Your task to perform on an android device: Go to Wikipedia Image 0: 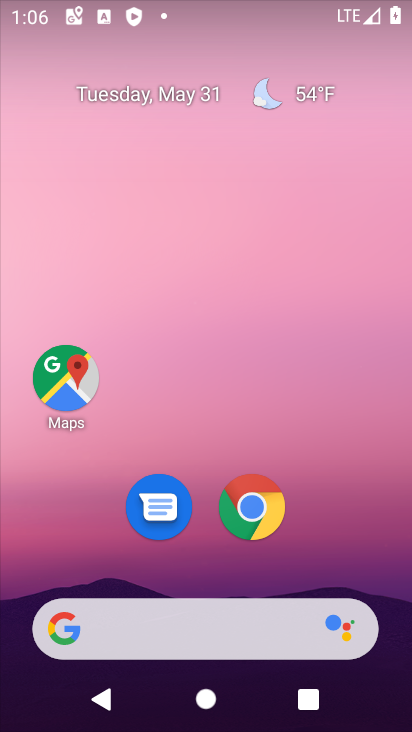
Step 0: drag from (399, 636) to (305, 42)
Your task to perform on an android device: Go to Wikipedia Image 1: 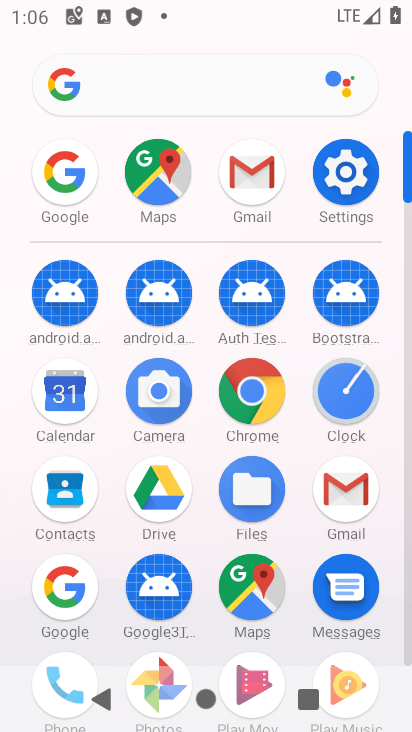
Step 1: click (60, 591)
Your task to perform on an android device: Go to Wikipedia Image 2: 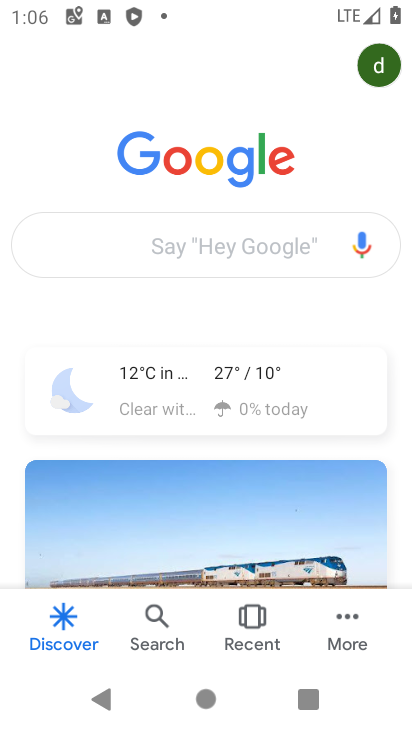
Step 2: click (146, 229)
Your task to perform on an android device: Go to Wikipedia Image 3: 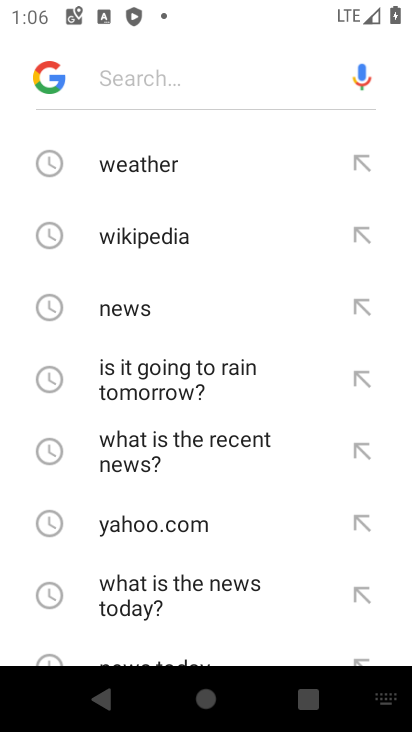
Step 3: click (148, 248)
Your task to perform on an android device: Go to Wikipedia Image 4: 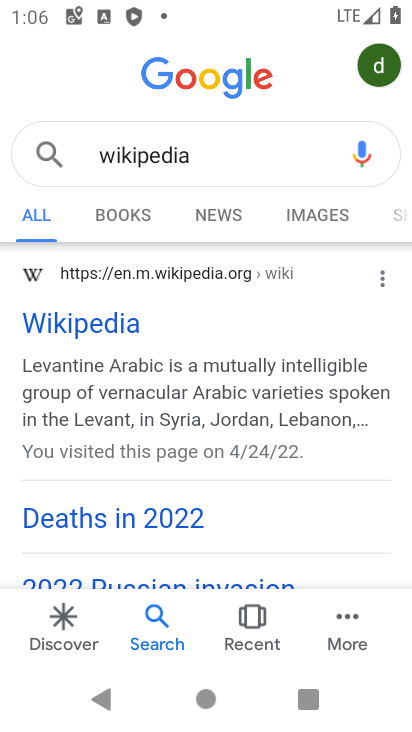
Step 4: task complete